Your task to perform on an android device: Open Google Chrome and open the bookmarks view Image 0: 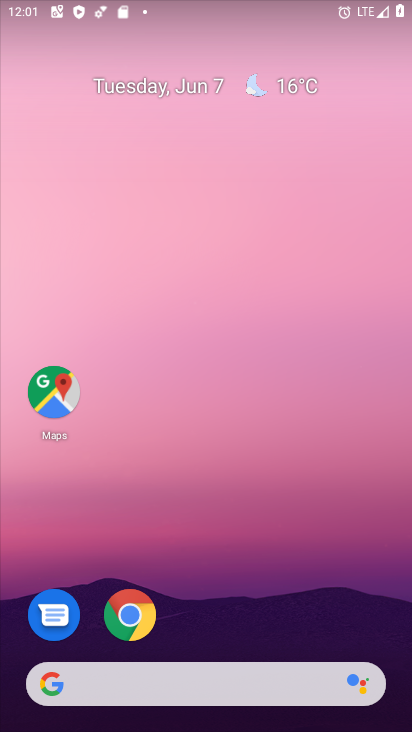
Step 0: press home button
Your task to perform on an android device: Open Google Chrome and open the bookmarks view Image 1: 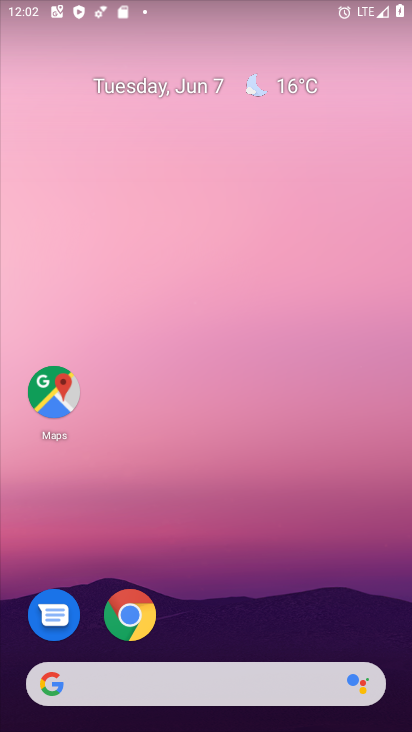
Step 1: click (127, 608)
Your task to perform on an android device: Open Google Chrome and open the bookmarks view Image 2: 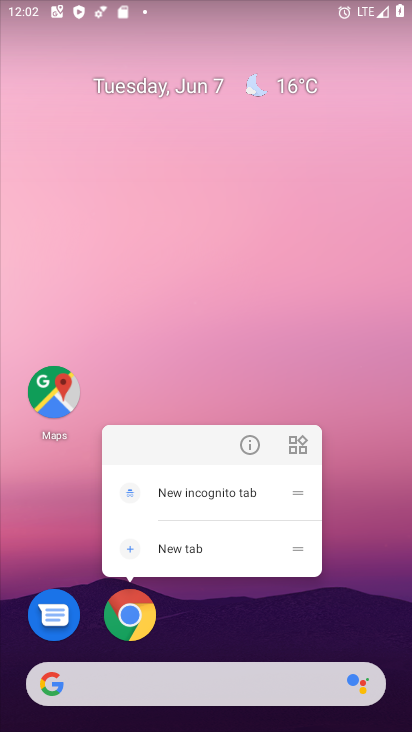
Step 2: click (124, 604)
Your task to perform on an android device: Open Google Chrome and open the bookmarks view Image 3: 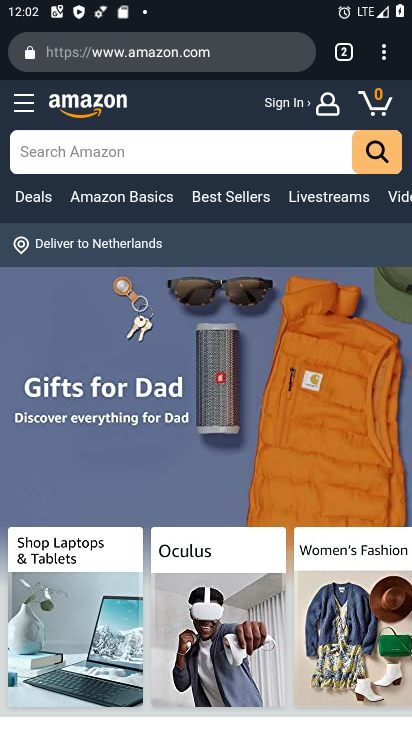
Step 3: click (340, 43)
Your task to perform on an android device: Open Google Chrome and open the bookmarks view Image 4: 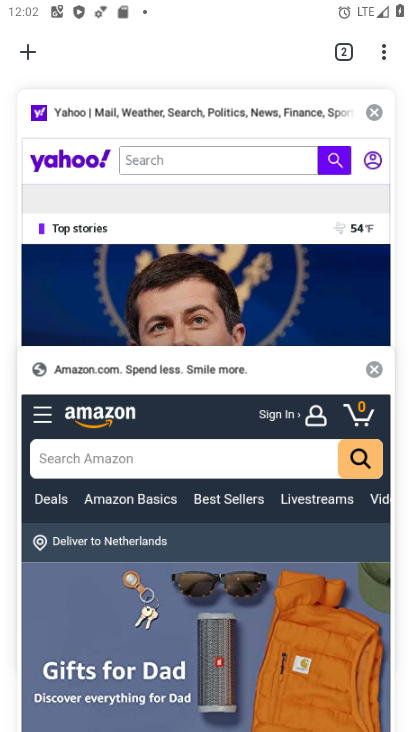
Step 4: click (372, 105)
Your task to perform on an android device: Open Google Chrome and open the bookmarks view Image 5: 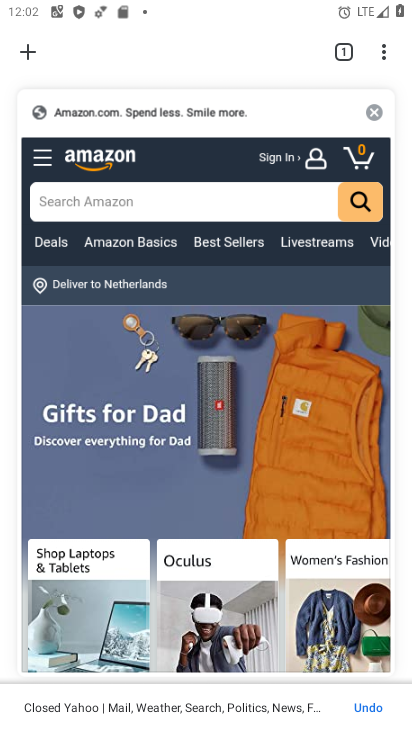
Step 5: click (372, 105)
Your task to perform on an android device: Open Google Chrome and open the bookmarks view Image 6: 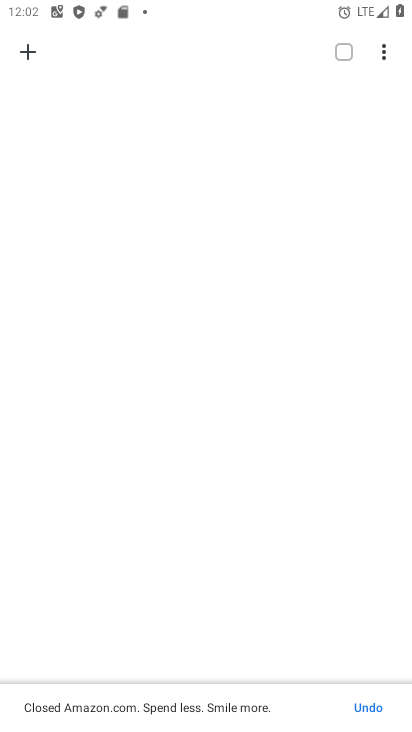
Step 6: click (30, 49)
Your task to perform on an android device: Open Google Chrome and open the bookmarks view Image 7: 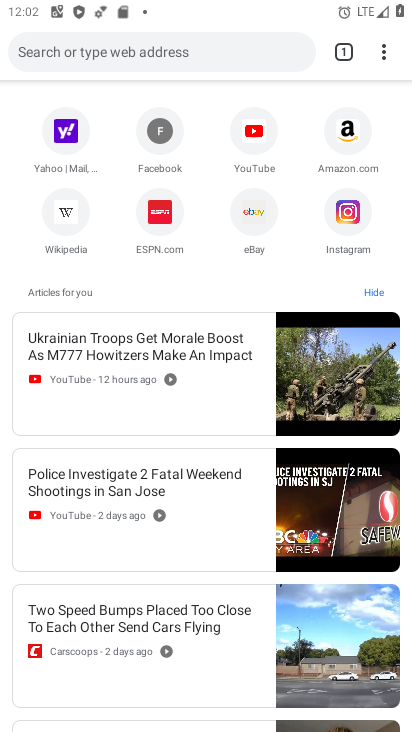
Step 7: click (382, 44)
Your task to perform on an android device: Open Google Chrome and open the bookmarks view Image 8: 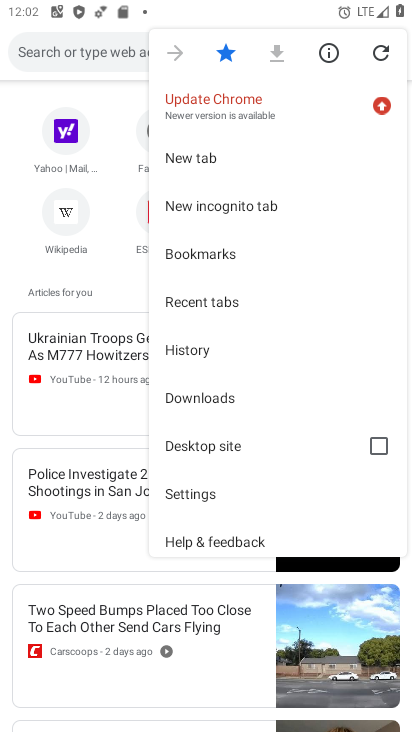
Step 8: click (254, 247)
Your task to perform on an android device: Open Google Chrome and open the bookmarks view Image 9: 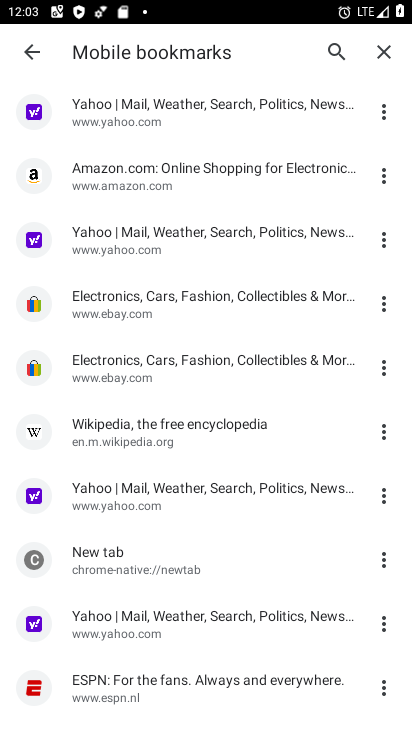
Step 9: click (174, 497)
Your task to perform on an android device: Open Google Chrome and open the bookmarks view Image 10: 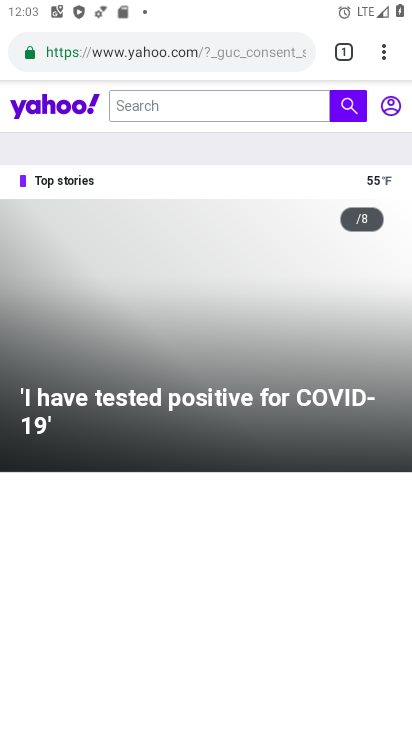
Step 10: task complete